Your task to perform on an android device: allow cookies in the chrome app Image 0: 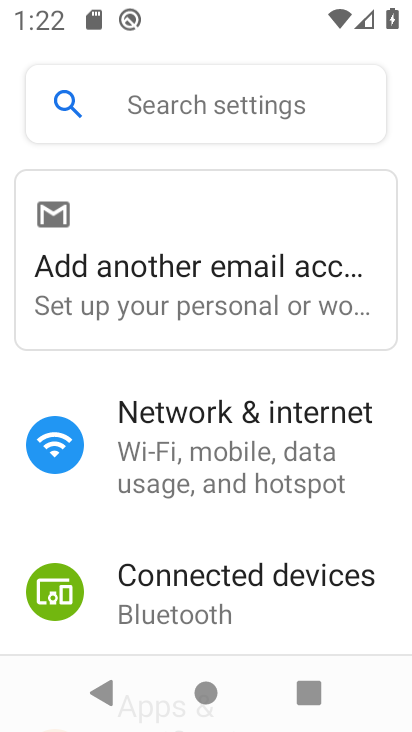
Step 0: press home button
Your task to perform on an android device: allow cookies in the chrome app Image 1: 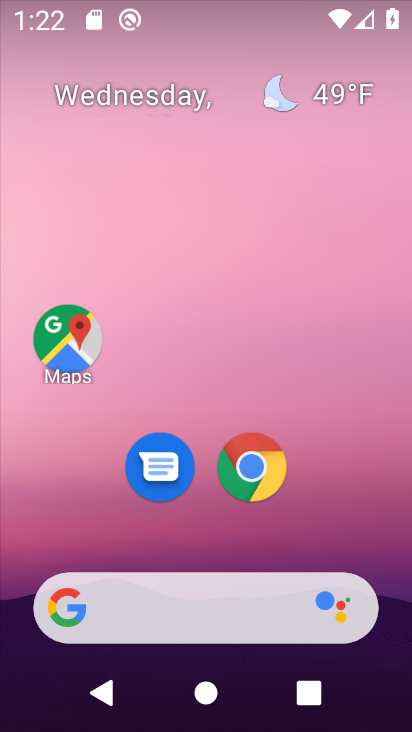
Step 1: click (246, 463)
Your task to perform on an android device: allow cookies in the chrome app Image 2: 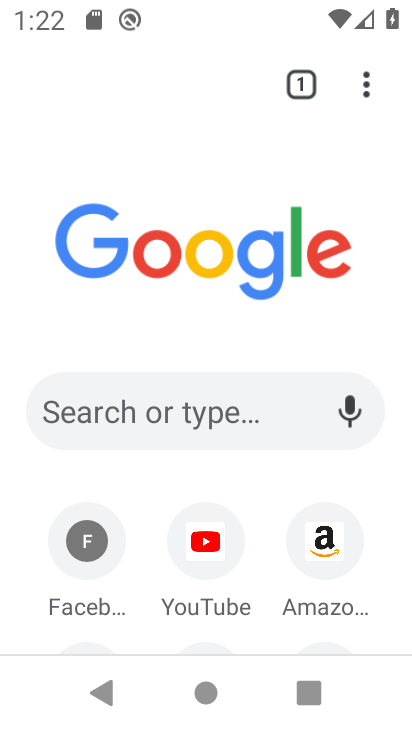
Step 2: click (365, 86)
Your task to perform on an android device: allow cookies in the chrome app Image 3: 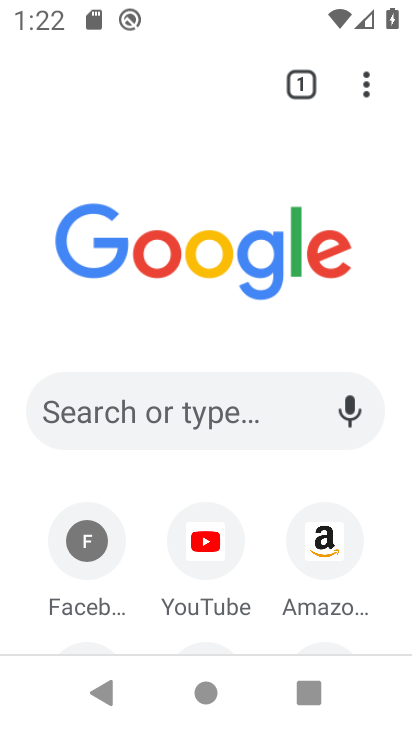
Step 3: click (365, 86)
Your task to perform on an android device: allow cookies in the chrome app Image 4: 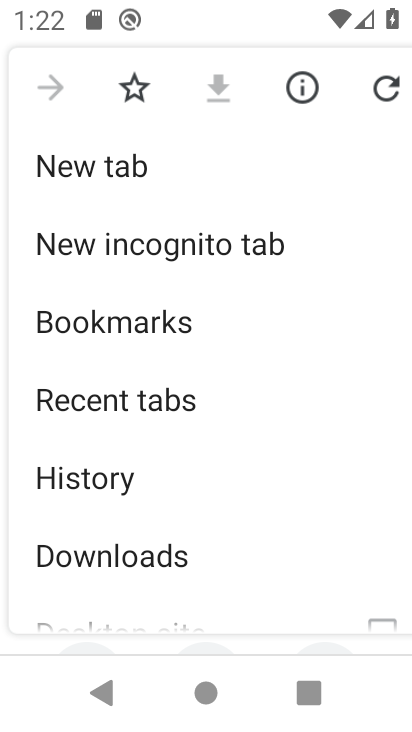
Step 4: drag from (245, 607) to (228, 339)
Your task to perform on an android device: allow cookies in the chrome app Image 5: 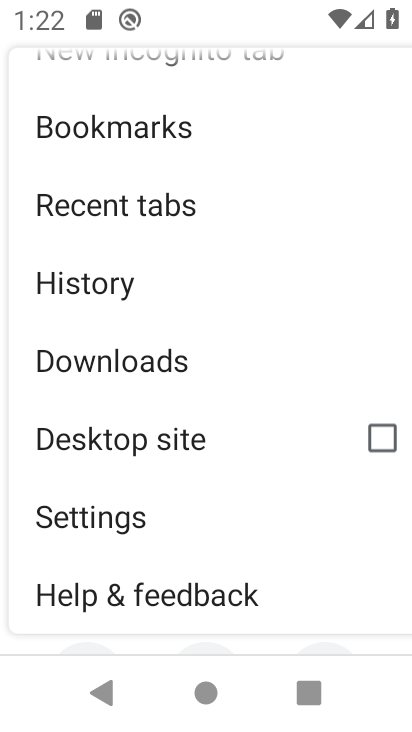
Step 5: click (88, 521)
Your task to perform on an android device: allow cookies in the chrome app Image 6: 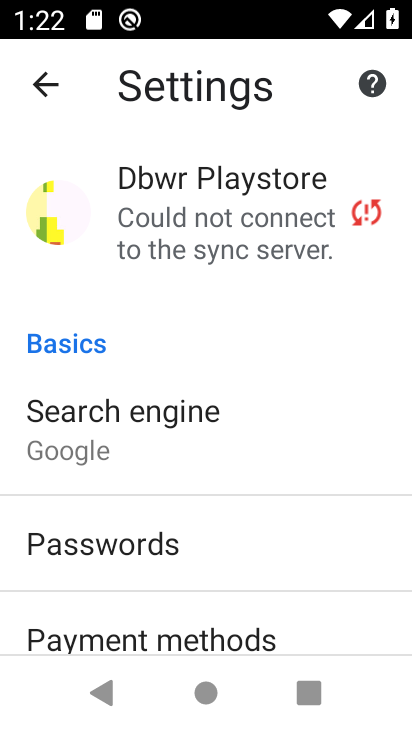
Step 6: drag from (304, 600) to (275, 292)
Your task to perform on an android device: allow cookies in the chrome app Image 7: 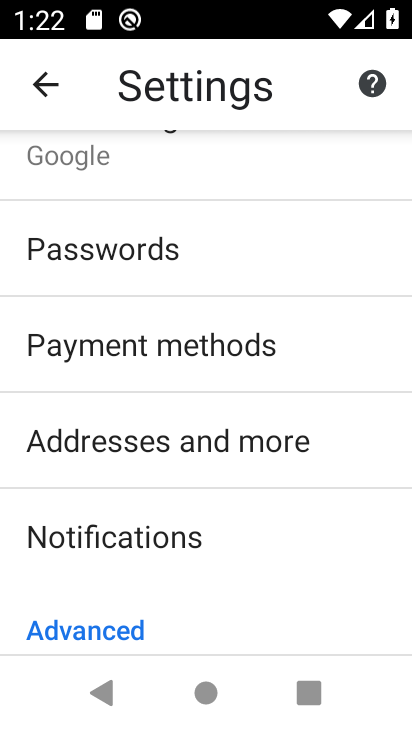
Step 7: drag from (300, 565) to (338, 287)
Your task to perform on an android device: allow cookies in the chrome app Image 8: 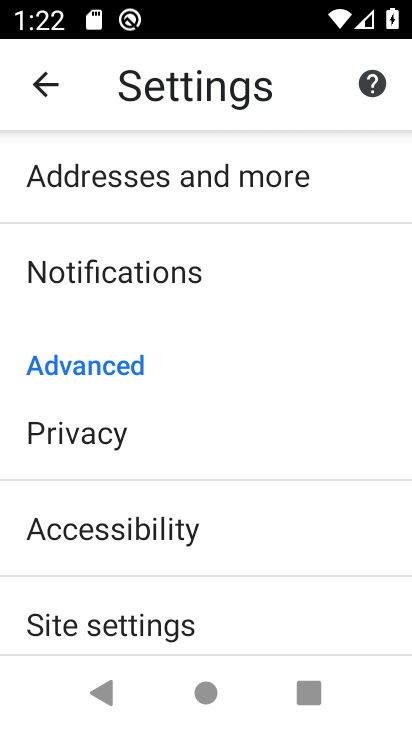
Step 8: drag from (248, 596) to (247, 319)
Your task to perform on an android device: allow cookies in the chrome app Image 9: 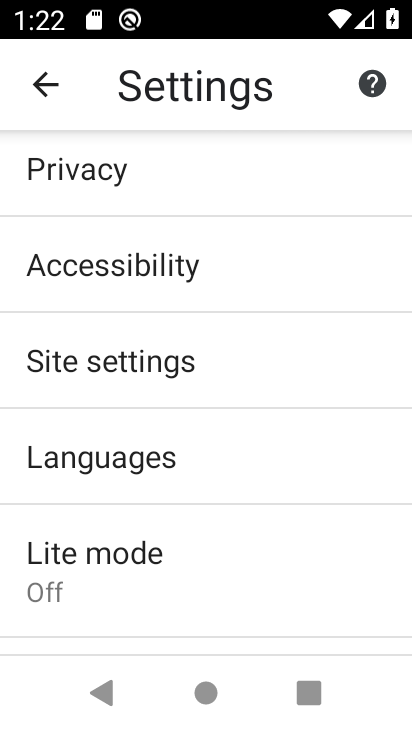
Step 9: click (88, 363)
Your task to perform on an android device: allow cookies in the chrome app Image 10: 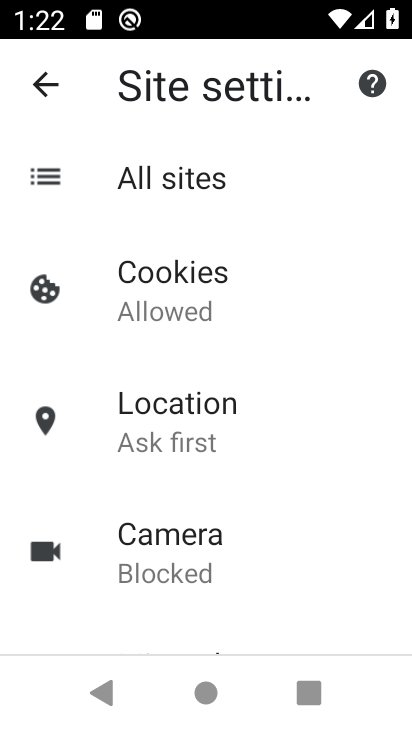
Step 10: click (173, 280)
Your task to perform on an android device: allow cookies in the chrome app Image 11: 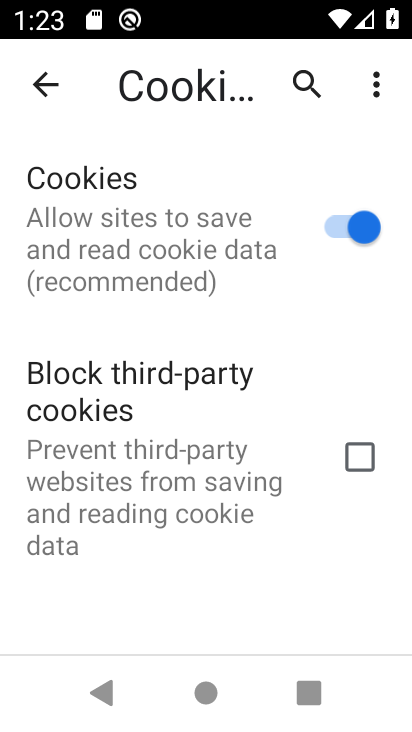
Step 11: task complete